Your task to perform on an android device: What's the weather going to be tomorrow? Image 0: 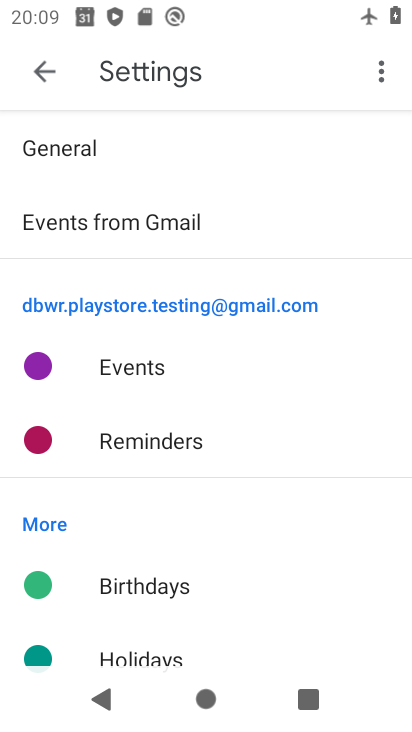
Step 0: press home button
Your task to perform on an android device: What's the weather going to be tomorrow? Image 1: 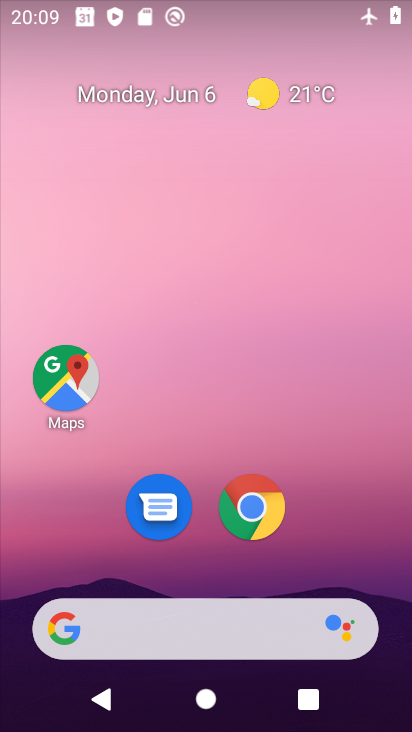
Step 1: click (183, 636)
Your task to perform on an android device: What's the weather going to be tomorrow? Image 2: 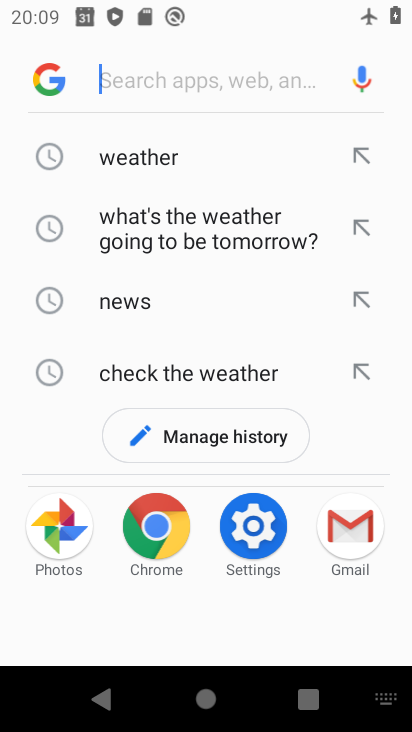
Step 2: click (130, 167)
Your task to perform on an android device: What's the weather going to be tomorrow? Image 3: 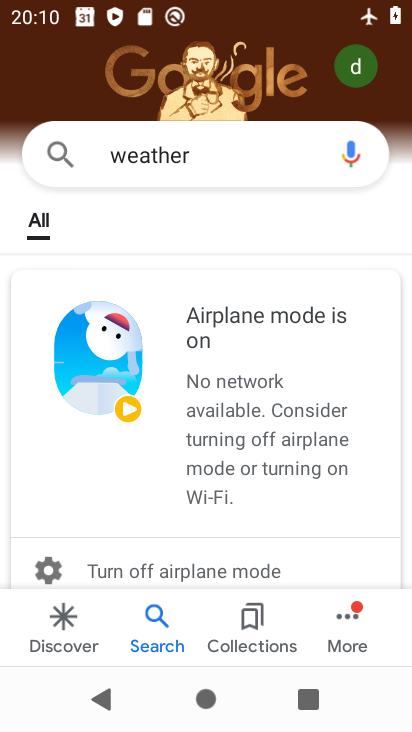
Step 3: task complete